Your task to perform on an android device: Open Youtube and go to the subscriptions tab Image 0: 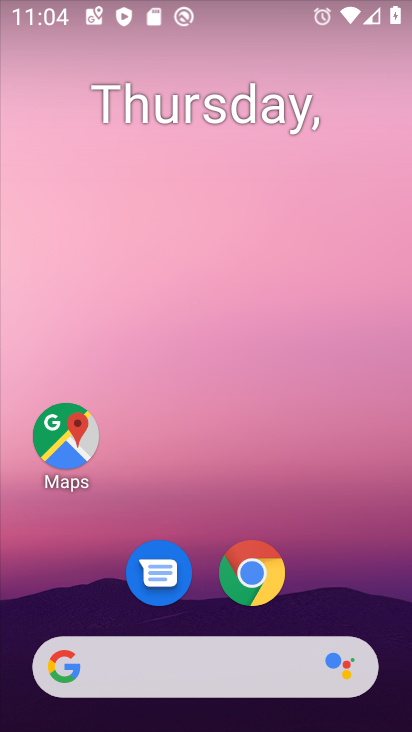
Step 0: drag from (336, 608) to (265, 134)
Your task to perform on an android device: Open Youtube and go to the subscriptions tab Image 1: 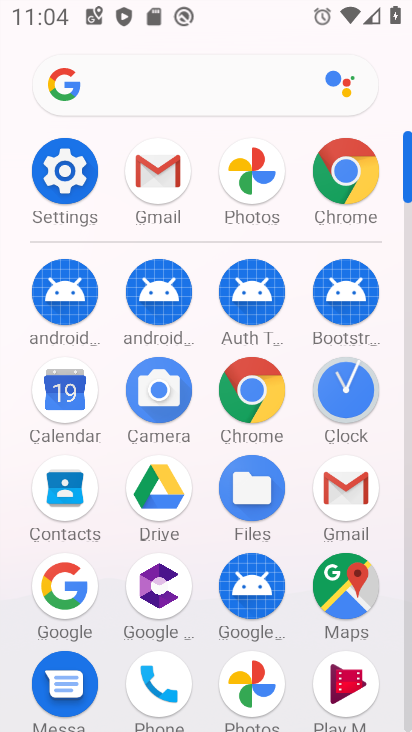
Step 1: drag from (299, 549) to (325, 192)
Your task to perform on an android device: Open Youtube and go to the subscriptions tab Image 2: 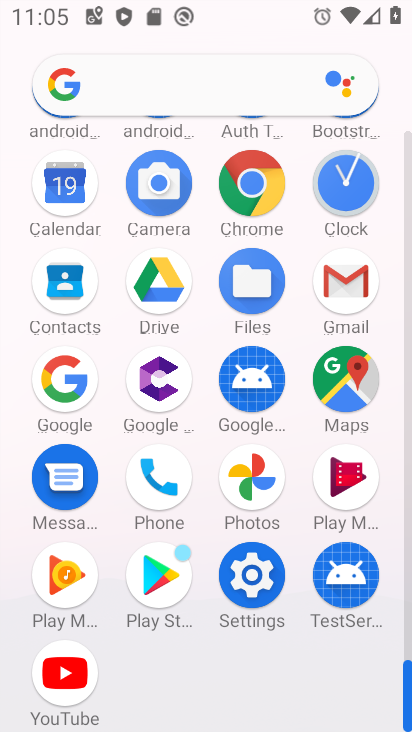
Step 2: click (62, 673)
Your task to perform on an android device: Open Youtube and go to the subscriptions tab Image 3: 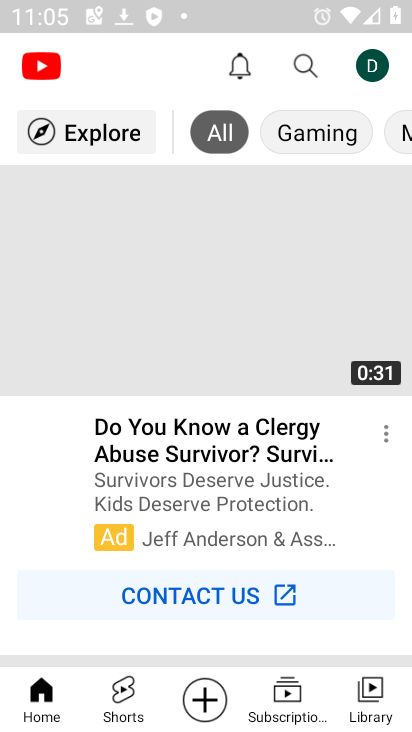
Step 3: click (305, 721)
Your task to perform on an android device: Open Youtube and go to the subscriptions tab Image 4: 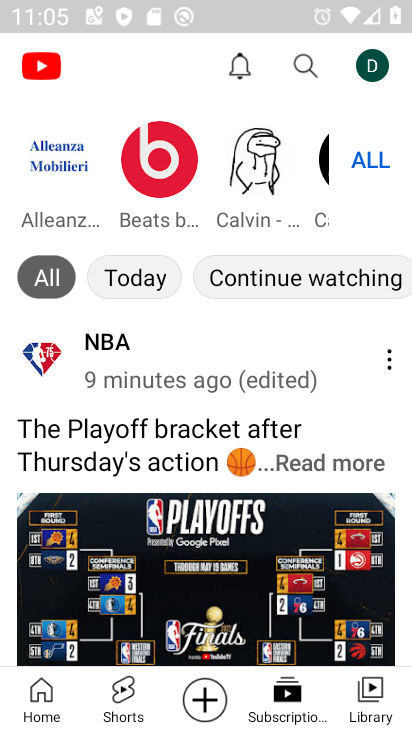
Step 4: task complete